Your task to perform on an android device: Search for vegetarian restaurants on Maps Image 0: 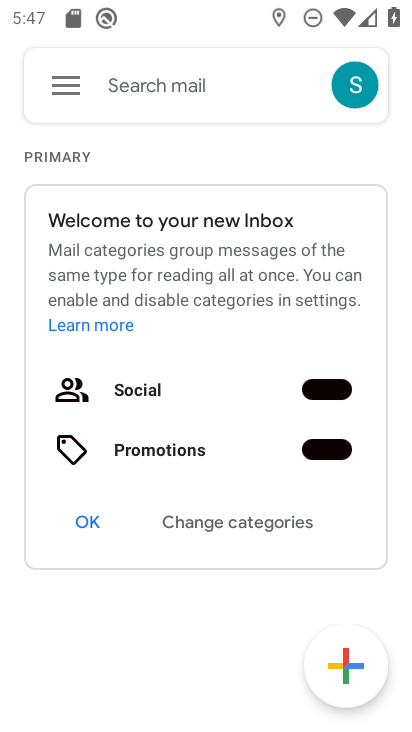
Step 0: press back button
Your task to perform on an android device: Search for vegetarian restaurants on Maps Image 1: 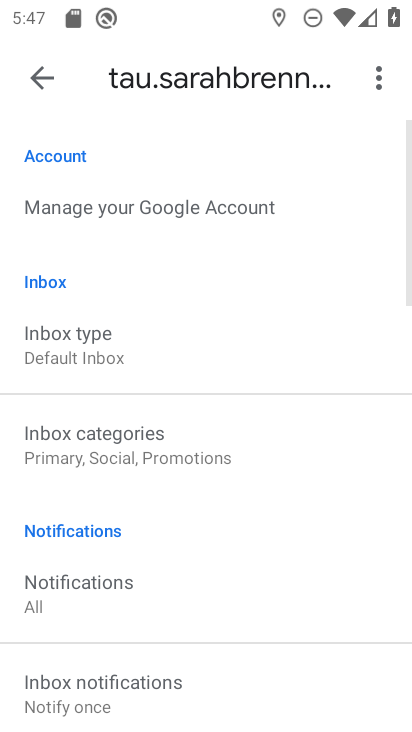
Step 1: press back button
Your task to perform on an android device: Search for vegetarian restaurants on Maps Image 2: 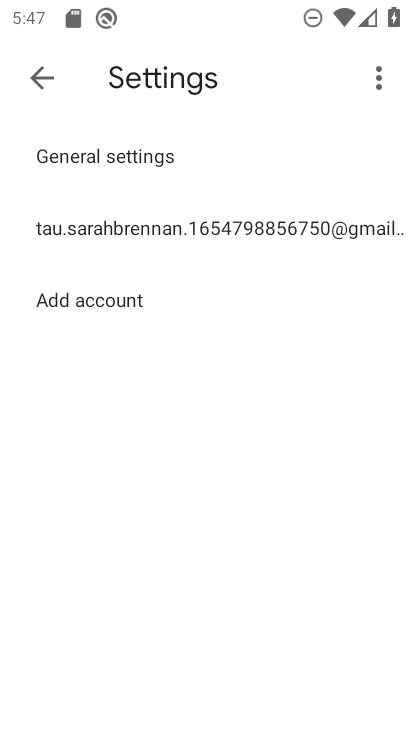
Step 2: press back button
Your task to perform on an android device: Search for vegetarian restaurants on Maps Image 3: 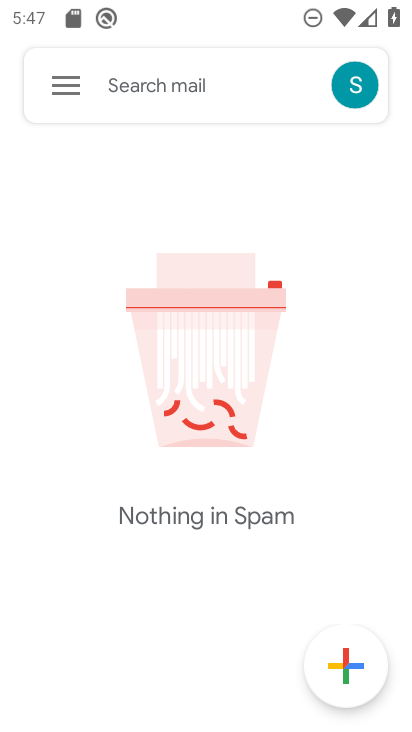
Step 3: press back button
Your task to perform on an android device: Search for vegetarian restaurants on Maps Image 4: 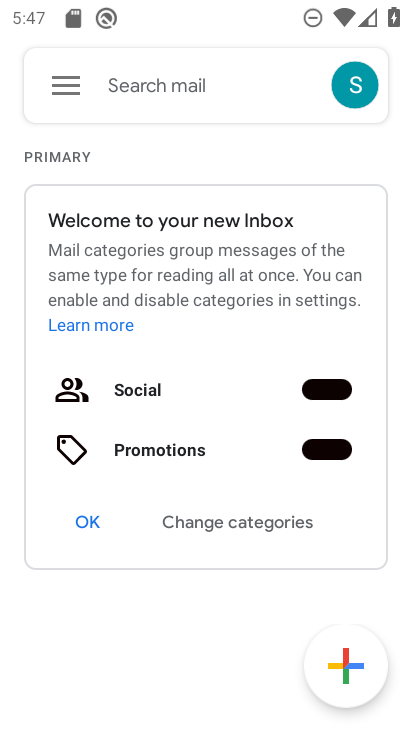
Step 4: press back button
Your task to perform on an android device: Search for vegetarian restaurants on Maps Image 5: 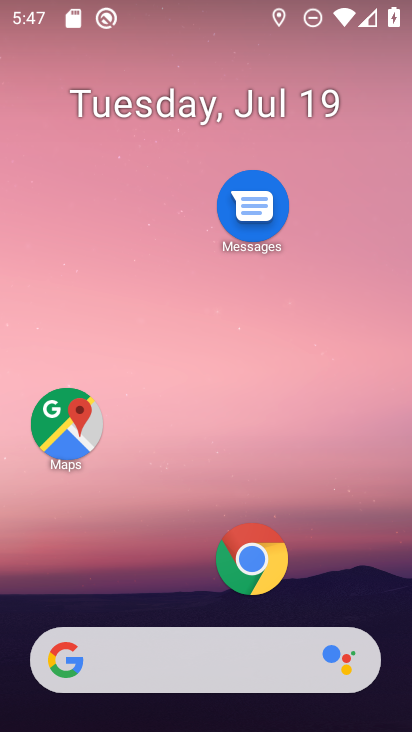
Step 5: click (57, 423)
Your task to perform on an android device: Search for vegetarian restaurants on Maps Image 6: 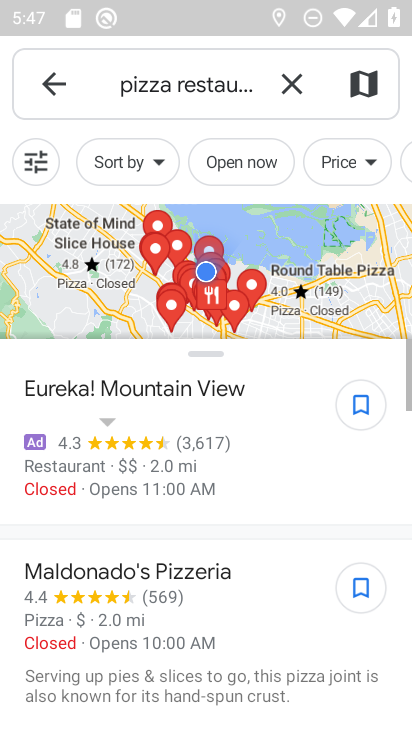
Step 6: click (293, 69)
Your task to perform on an android device: Search for vegetarian restaurants on Maps Image 7: 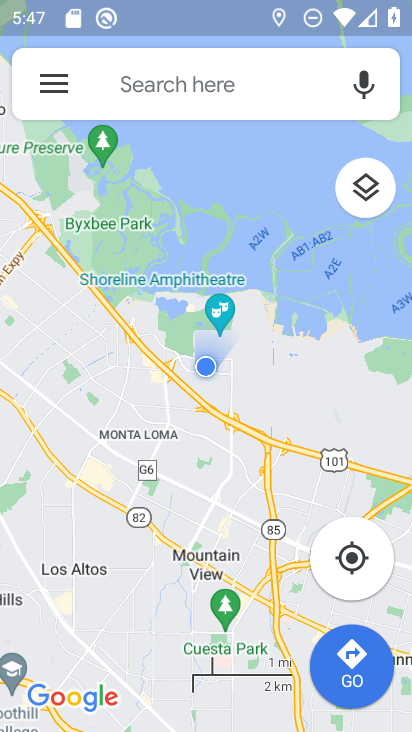
Step 7: click (102, 80)
Your task to perform on an android device: Search for vegetarian restaurants on Maps Image 8: 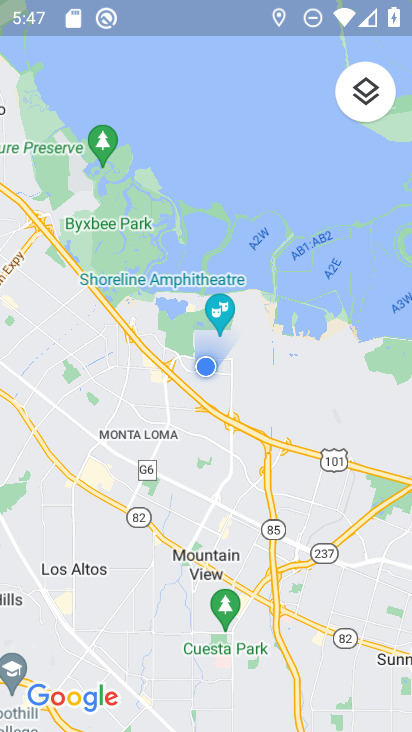
Step 8: press back button
Your task to perform on an android device: Search for vegetarian restaurants on Maps Image 9: 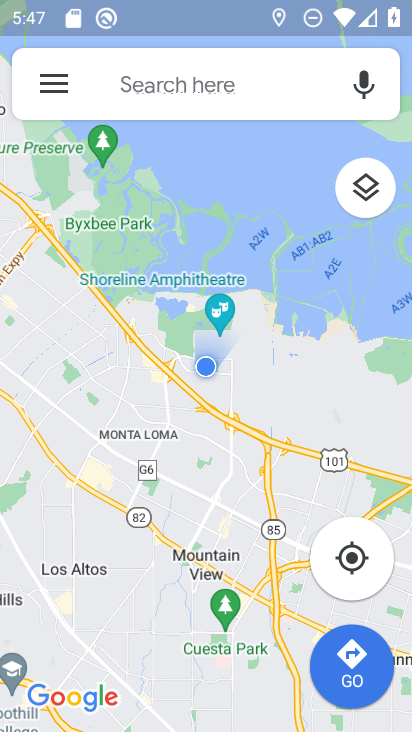
Step 9: click (207, 96)
Your task to perform on an android device: Search for vegetarian restaurants on Maps Image 10: 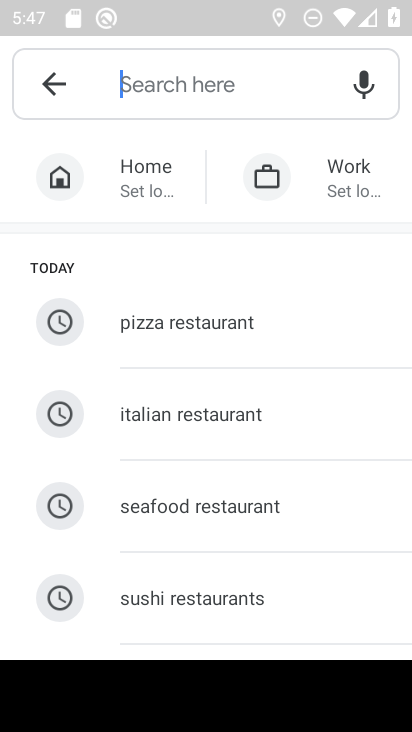
Step 10: drag from (186, 579) to (270, 207)
Your task to perform on an android device: Search for vegetarian restaurants on Maps Image 11: 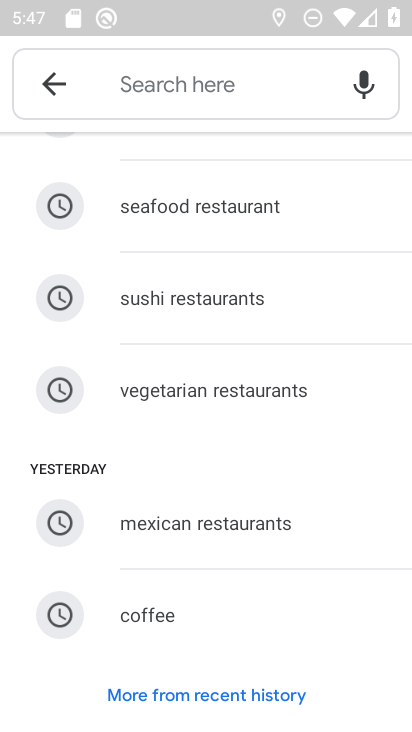
Step 11: click (179, 389)
Your task to perform on an android device: Search for vegetarian restaurants on Maps Image 12: 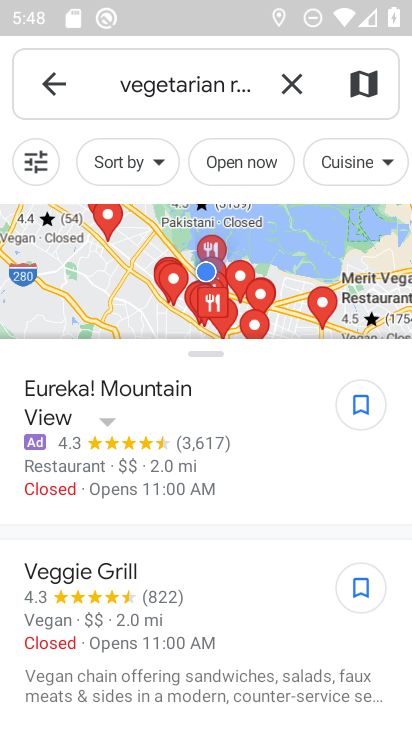
Step 12: task complete